Your task to perform on an android device: Search for "alienware area 51" on newegg.com, select the first entry, add it to the cart, then select checkout. Image 0: 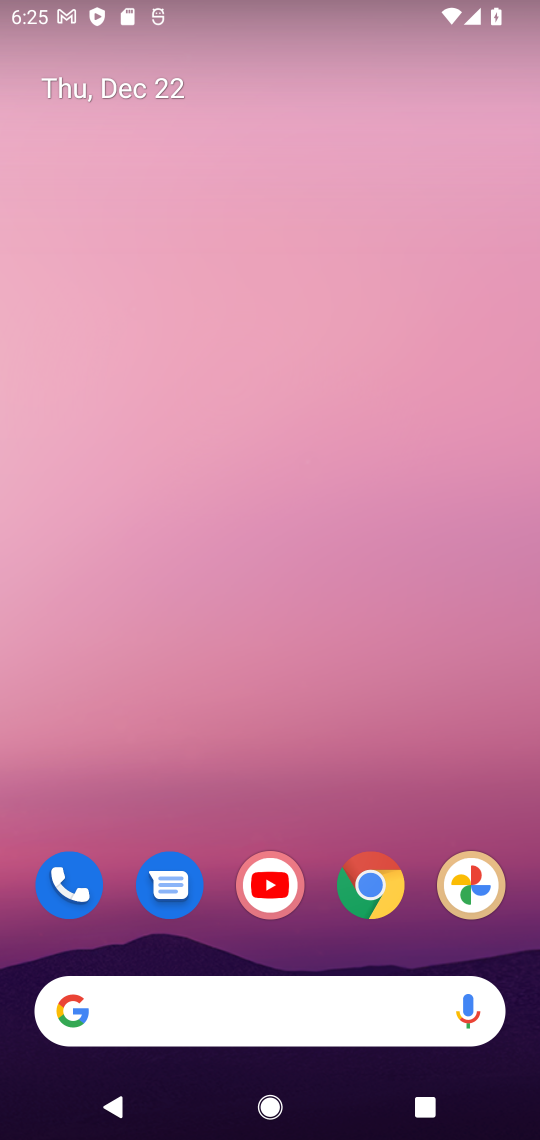
Step 0: click (374, 887)
Your task to perform on an android device: Search for "alienware area 51" on newegg.com, select the first entry, add it to the cart, then select checkout. Image 1: 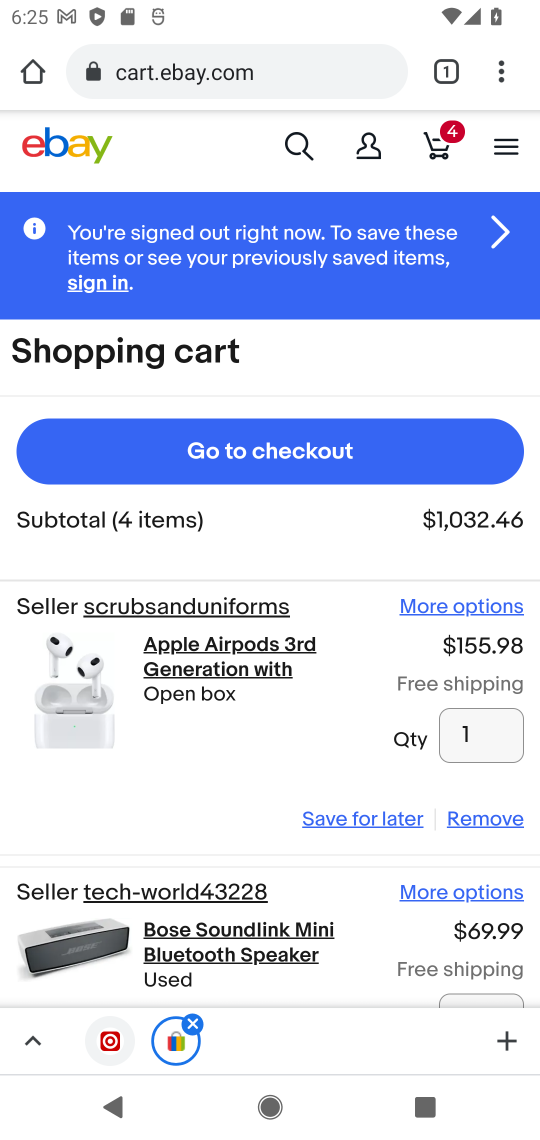
Step 1: click (171, 82)
Your task to perform on an android device: Search for "alienware area 51" on newegg.com, select the first entry, add it to the cart, then select checkout. Image 2: 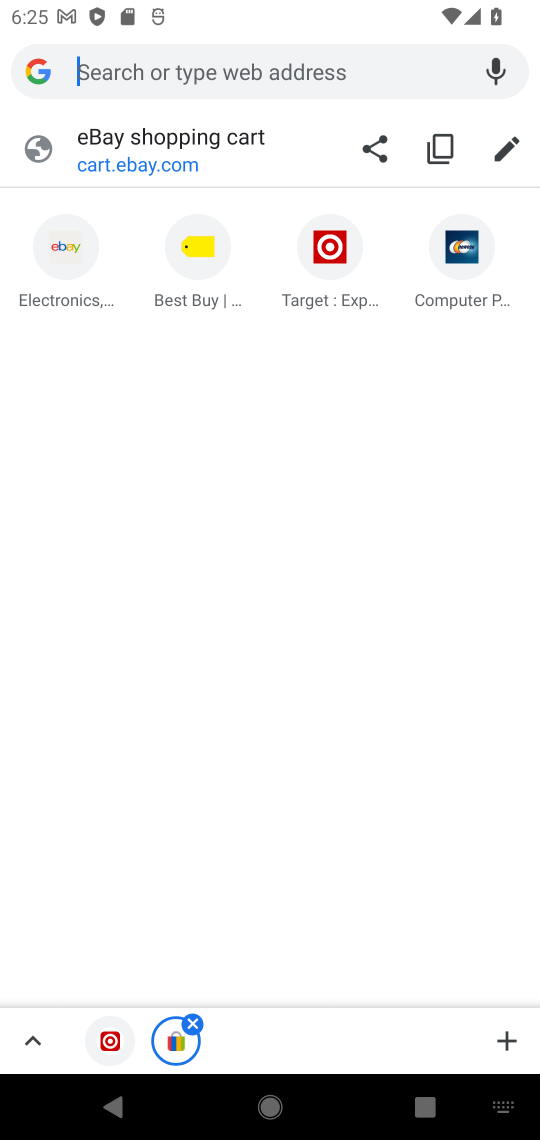
Step 2: click (461, 293)
Your task to perform on an android device: Search for "alienware area 51" on newegg.com, select the first entry, add it to the cart, then select checkout. Image 3: 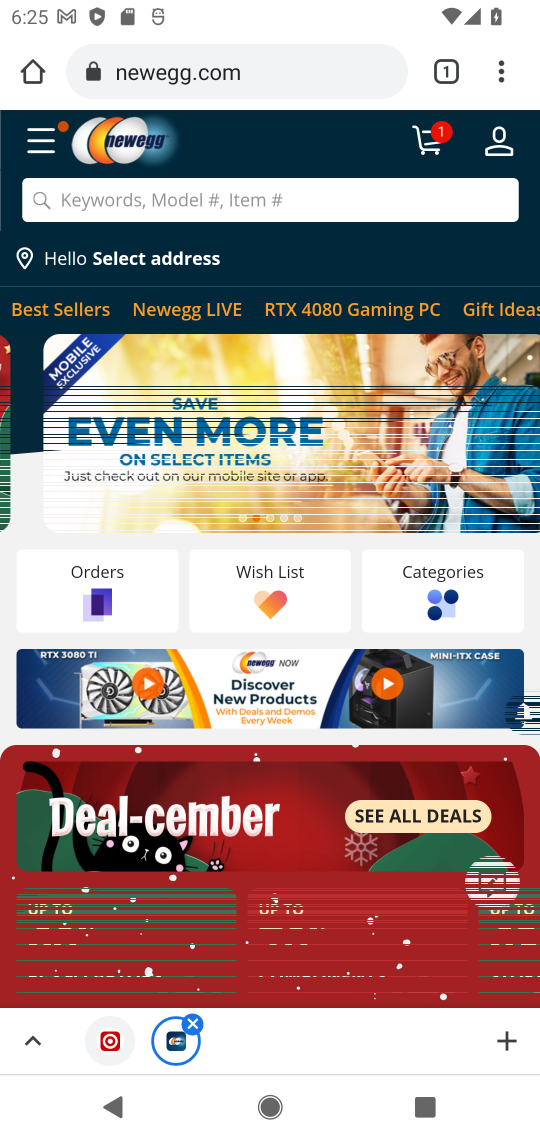
Step 3: click (103, 211)
Your task to perform on an android device: Search for "alienware area 51" on newegg.com, select the first entry, add it to the cart, then select checkout. Image 4: 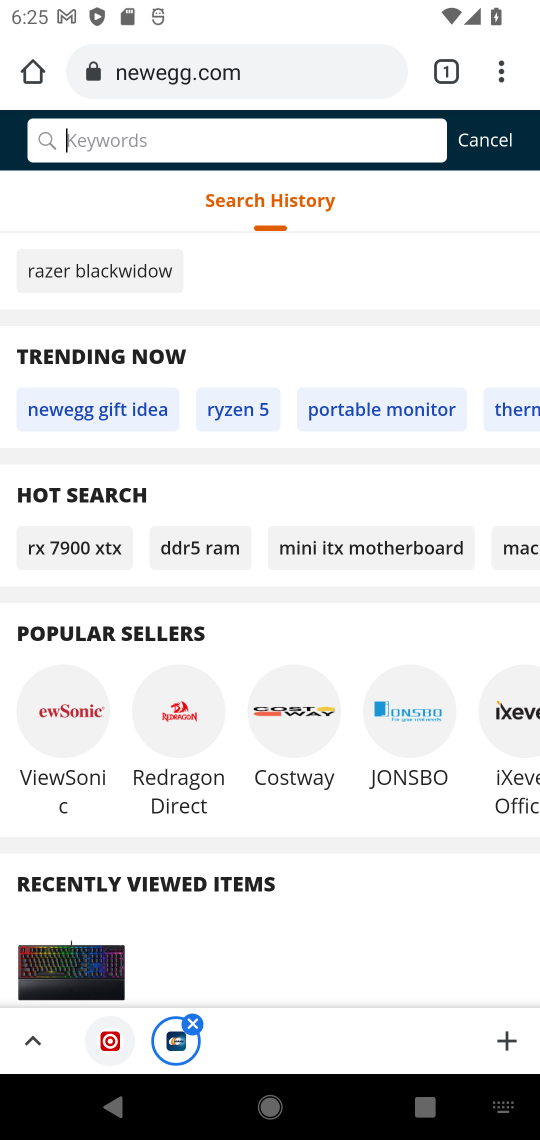
Step 4: type "alienware area 51"
Your task to perform on an android device: Search for "alienware area 51" on newegg.com, select the first entry, add it to the cart, then select checkout. Image 5: 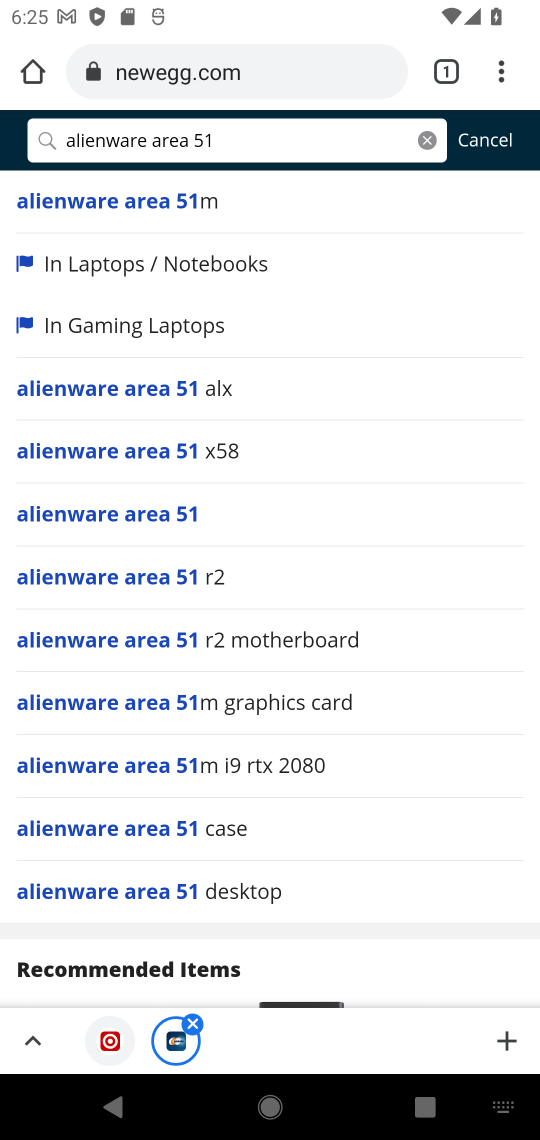
Step 5: click (97, 517)
Your task to perform on an android device: Search for "alienware area 51" on newegg.com, select the first entry, add it to the cart, then select checkout. Image 6: 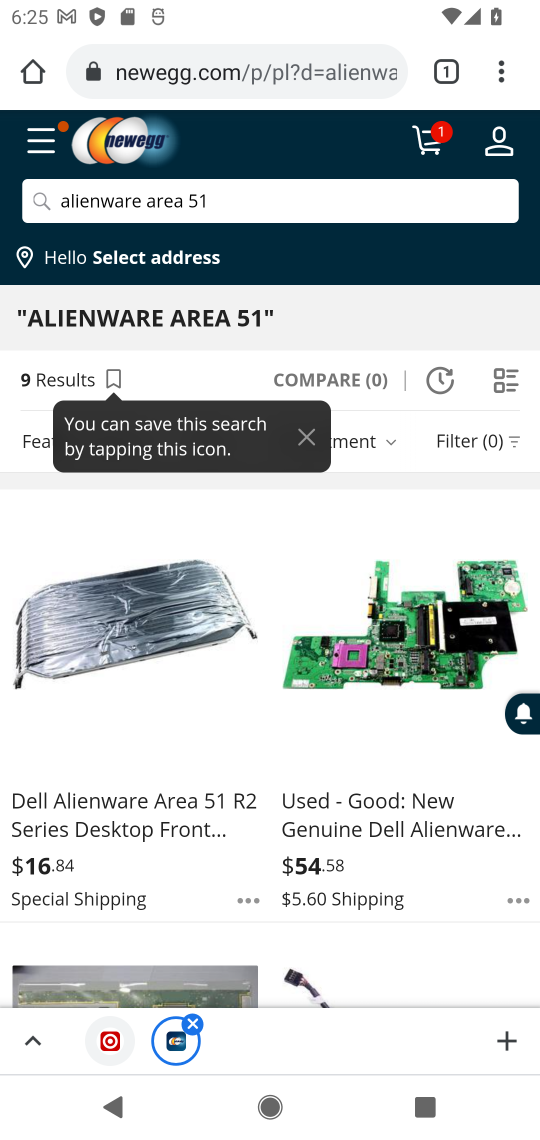
Step 6: click (90, 822)
Your task to perform on an android device: Search for "alienware area 51" on newegg.com, select the first entry, add it to the cart, then select checkout. Image 7: 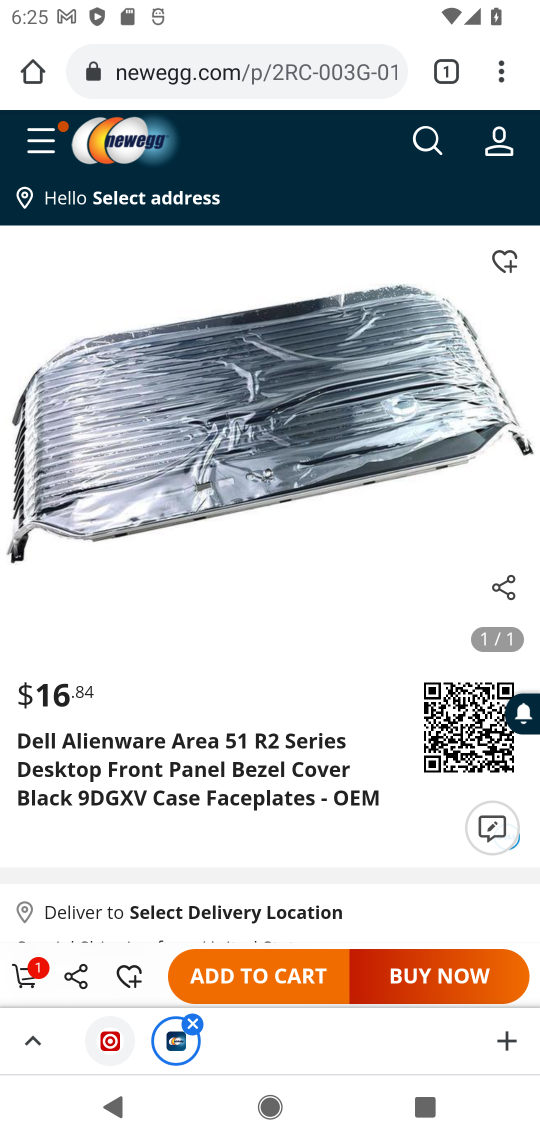
Step 7: click (270, 974)
Your task to perform on an android device: Search for "alienware area 51" on newegg.com, select the first entry, add it to the cart, then select checkout. Image 8: 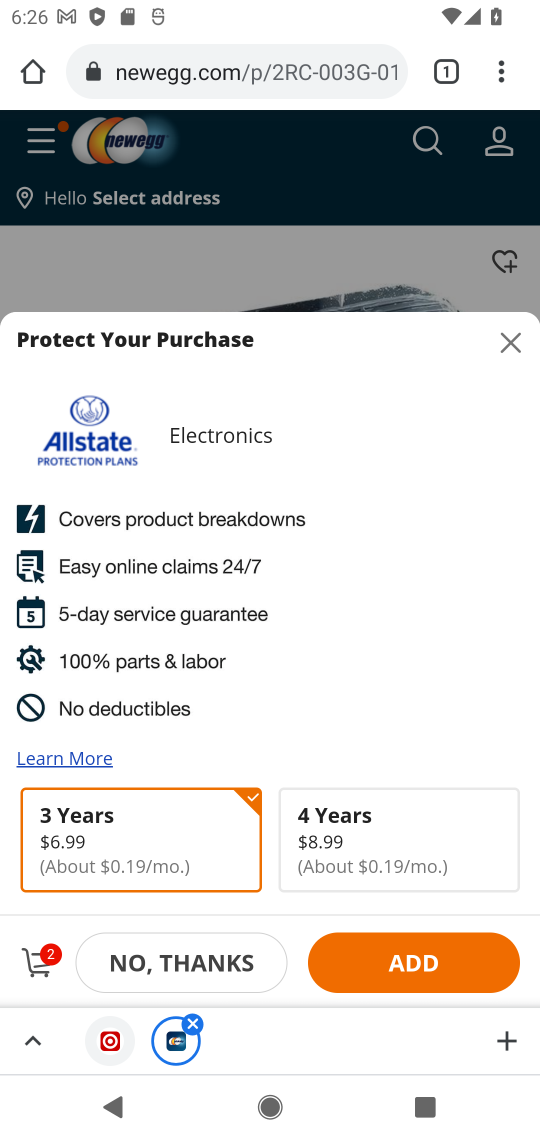
Step 8: click (44, 967)
Your task to perform on an android device: Search for "alienware area 51" on newegg.com, select the first entry, add it to the cart, then select checkout. Image 9: 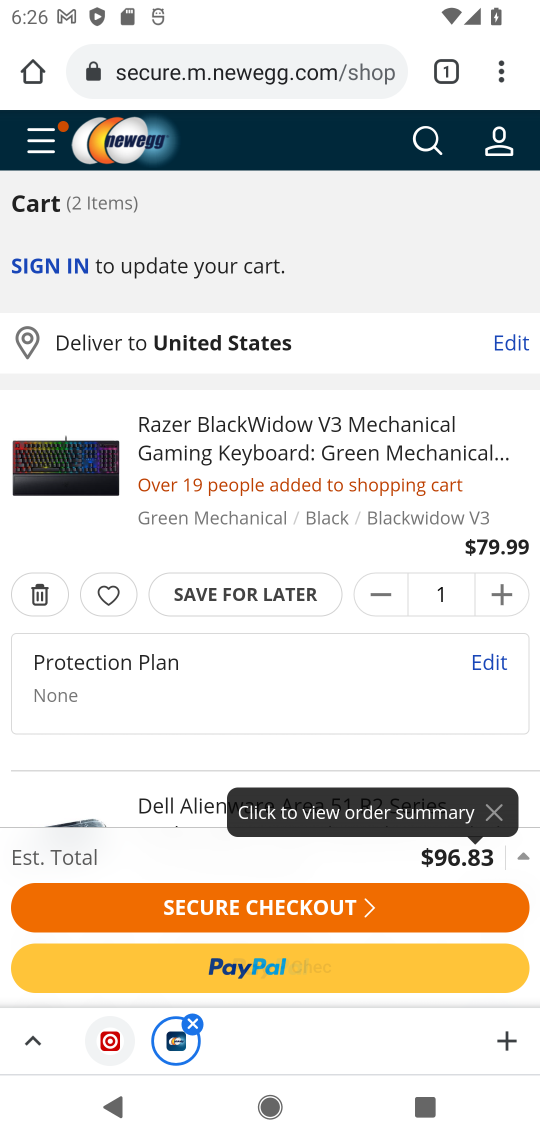
Step 9: click (267, 918)
Your task to perform on an android device: Search for "alienware area 51" on newegg.com, select the first entry, add it to the cart, then select checkout. Image 10: 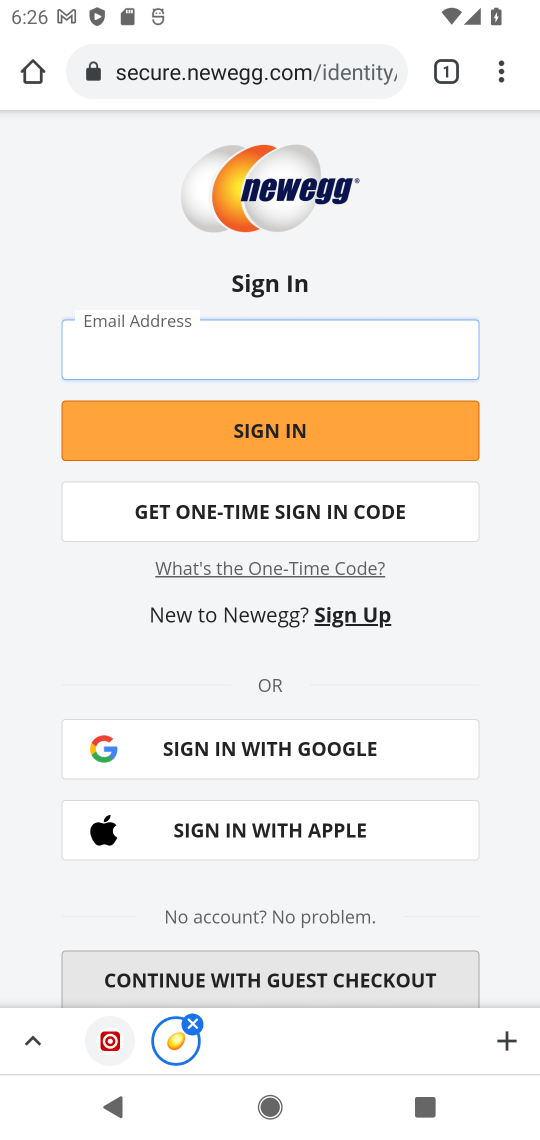
Step 10: task complete